Your task to perform on an android device: Go to internet settings Image 0: 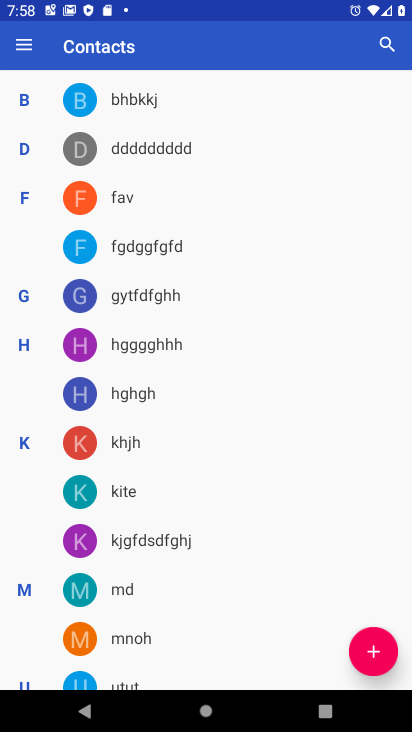
Step 0: press home button
Your task to perform on an android device: Go to internet settings Image 1: 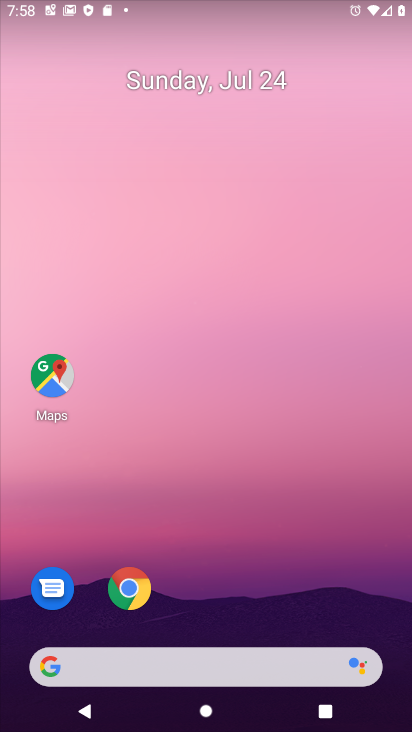
Step 1: drag from (345, 582) to (407, 23)
Your task to perform on an android device: Go to internet settings Image 2: 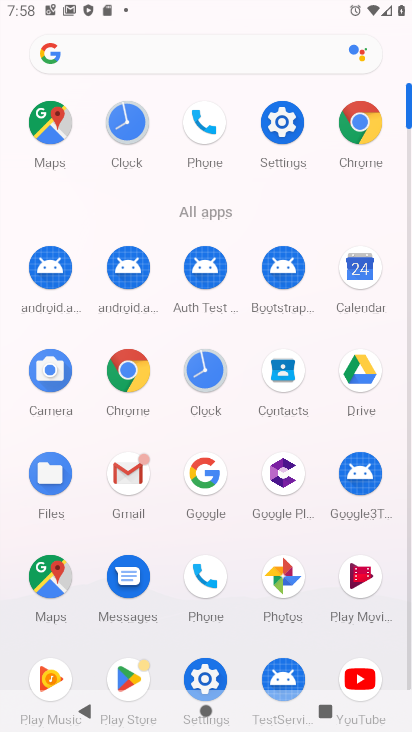
Step 2: click (285, 125)
Your task to perform on an android device: Go to internet settings Image 3: 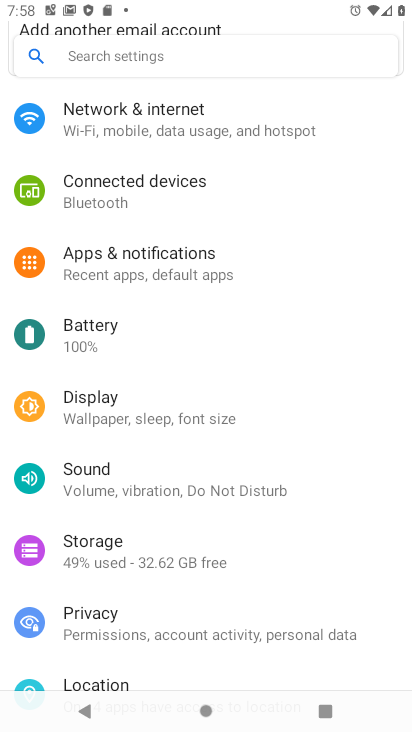
Step 3: click (182, 131)
Your task to perform on an android device: Go to internet settings Image 4: 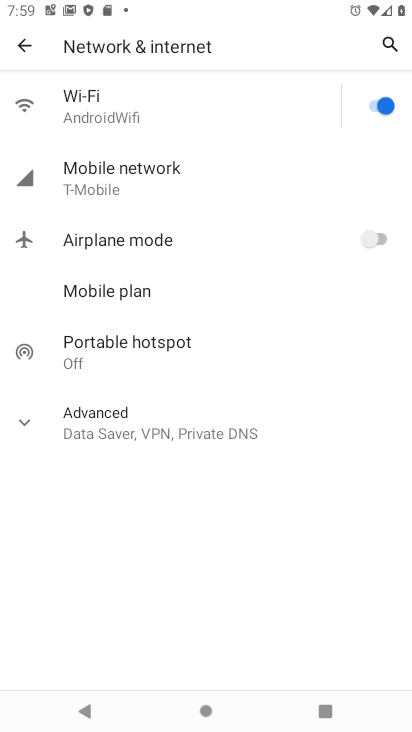
Step 4: task complete